Your task to perform on an android device: set the timer Image 0: 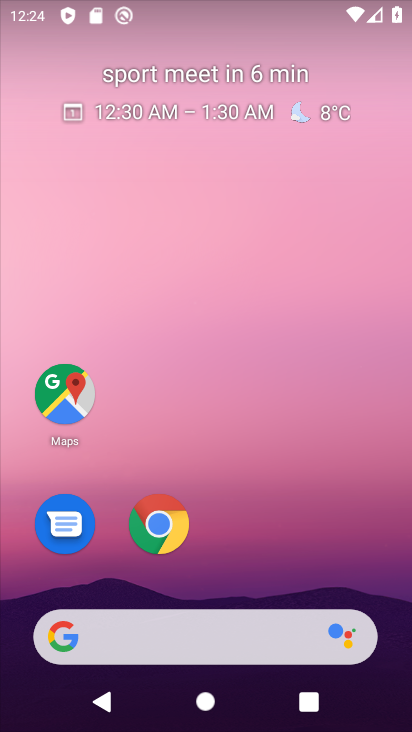
Step 0: drag from (259, 512) to (234, 21)
Your task to perform on an android device: set the timer Image 1: 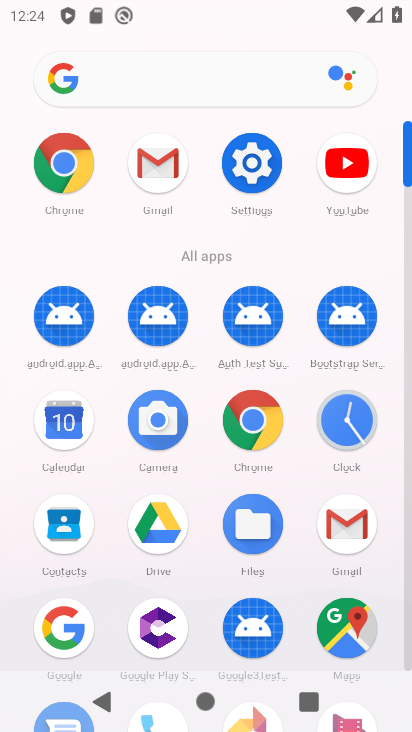
Step 1: click (337, 417)
Your task to perform on an android device: set the timer Image 2: 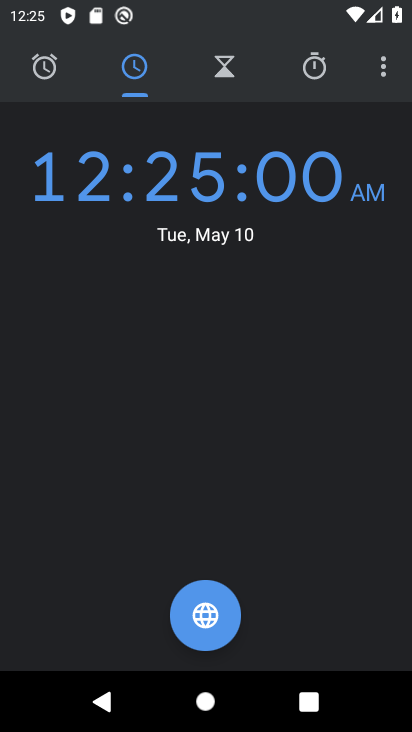
Step 2: click (228, 71)
Your task to perform on an android device: set the timer Image 3: 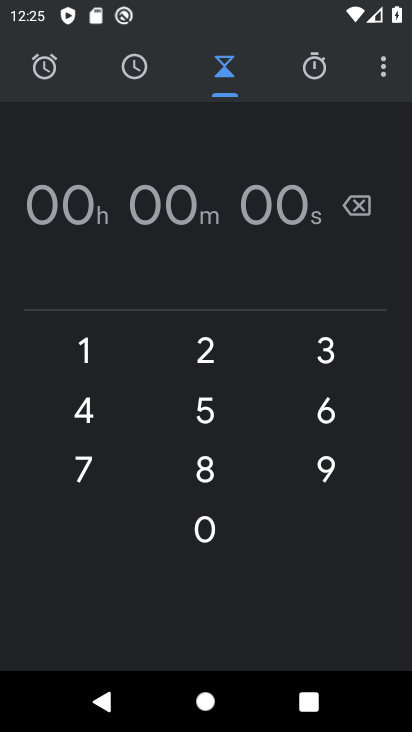
Step 3: click (83, 351)
Your task to perform on an android device: set the timer Image 4: 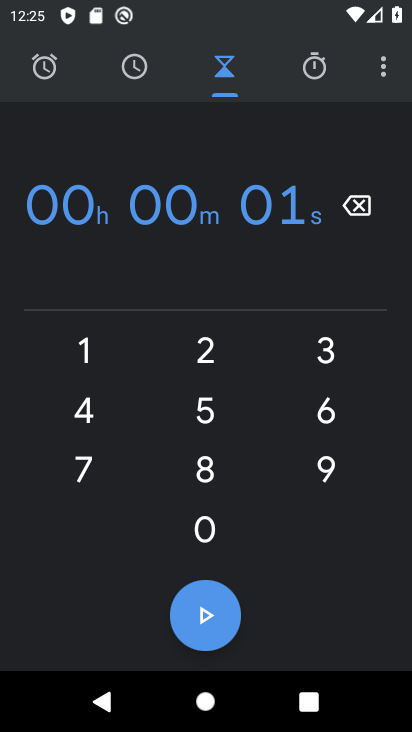
Step 4: click (84, 352)
Your task to perform on an android device: set the timer Image 5: 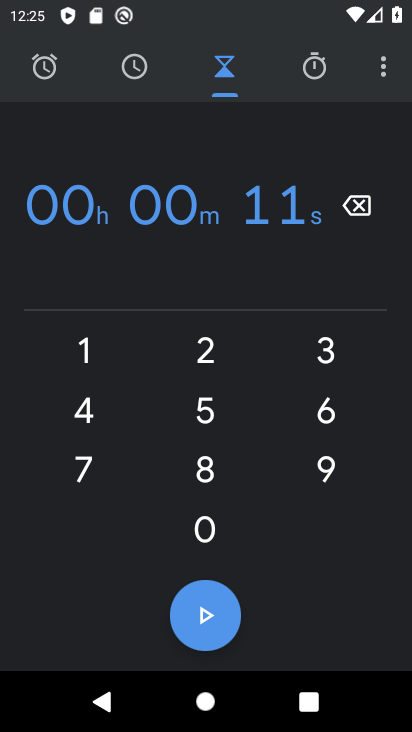
Step 5: task complete